Your task to perform on an android device: allow notifications from all sites in the chrome app Image 0: 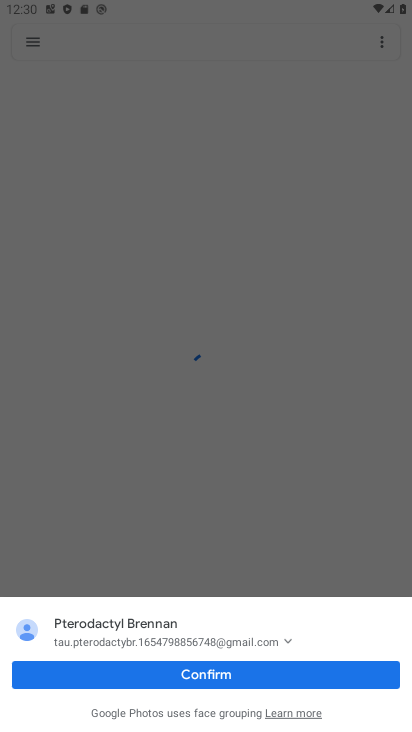
Step 0: press home button
Your task to perform on an android device: allow notifications from all sites in the chrome app Image 1: 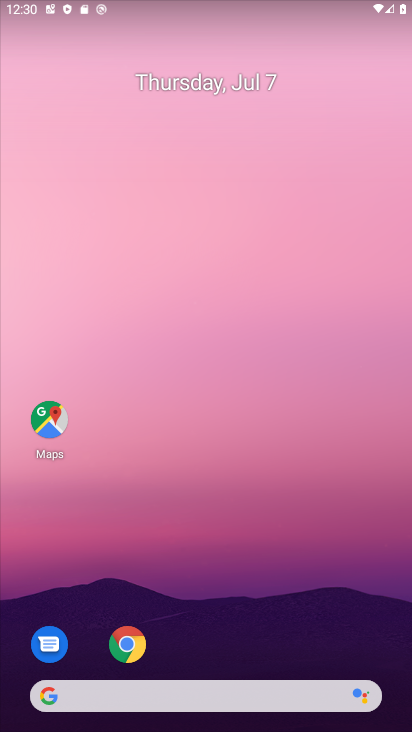
Step 1: click (120, 639)
Your task to perform on an android device: allow notifications from all sites in the chrome app Image 2: 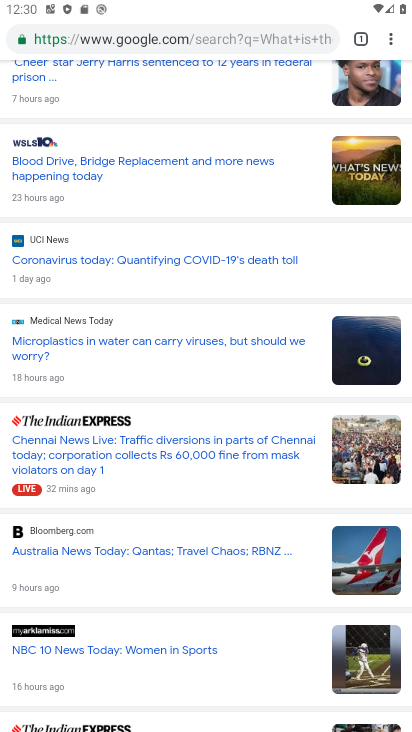
Step 2: drag from (275, 220) to (253, 728)
Your task to perform on an android device: allow notifications from all sites in the chrome app Image 3: 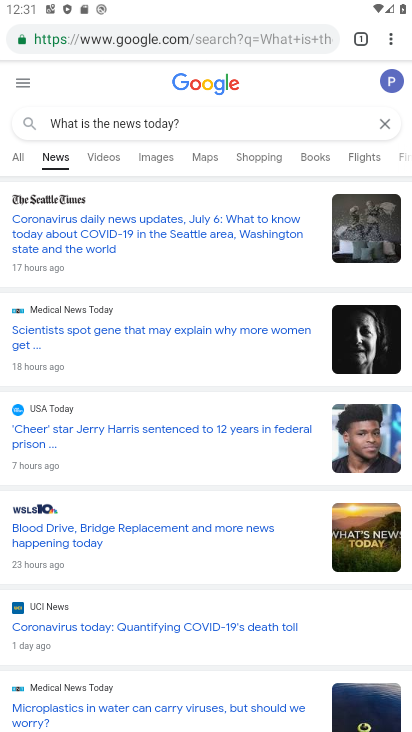
Step 3: click (388, 122)
Your task to perform on an android device: allow notifications from all sites in the chrome app Image 4: 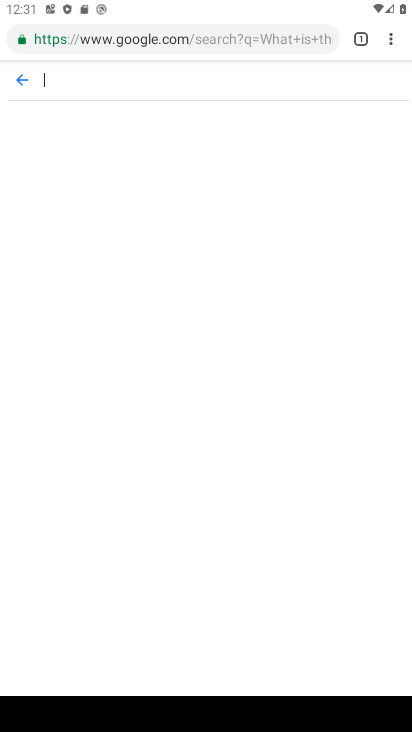
Step 4: click (114, 69)
Your task to perform on an android device: allow notifications from all sites in the chrome app Image 5: 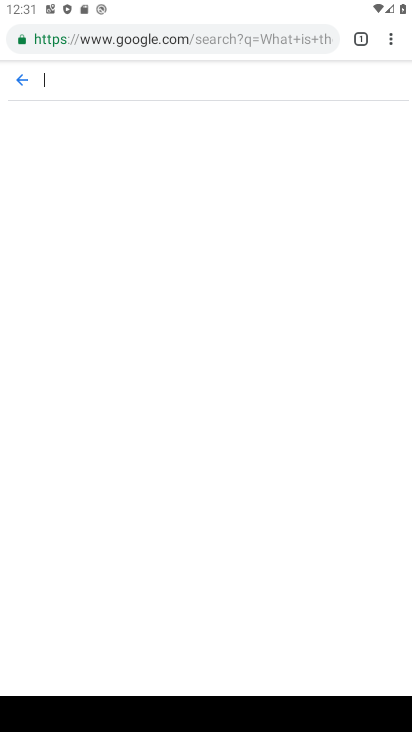
Step 5: click (16, 73)
Your task to perform on an android device: allow notifications from all sites in the chrome app Image 6: 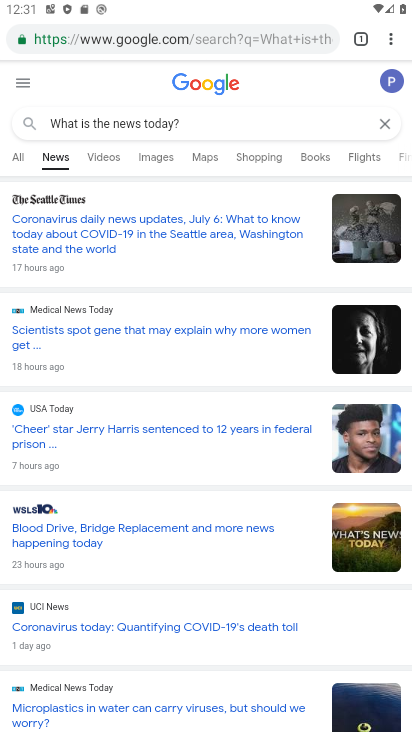
Step 6: drag from (387, 37) to (236, 433)
Your task to perform on an android device: allow notifications from all sites in the chrome app Image 7: 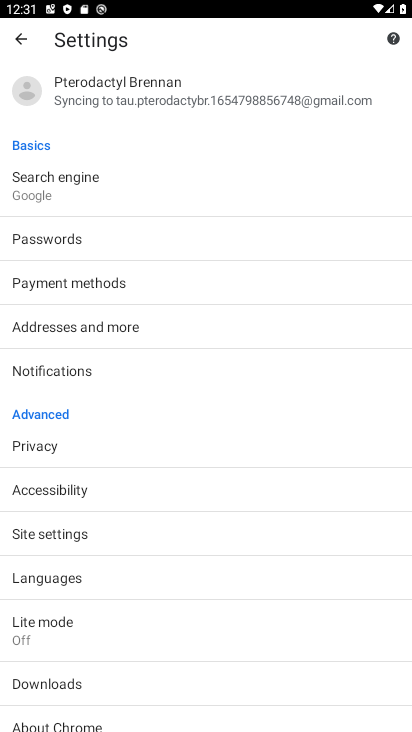
Step 7: click (26, 534)
Your task to perform on an android device: allow notifications from all sites in the chrome app Image 8: 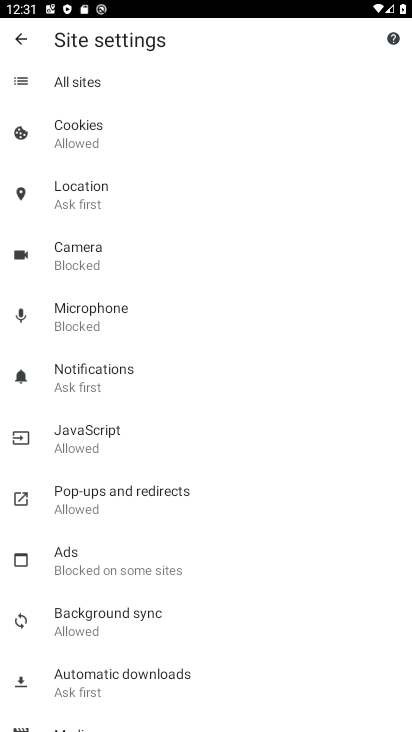
Step 8: click (68, 81)
Your task to perform on an android device: allow notifications from all sites in the chrome app Image 9: 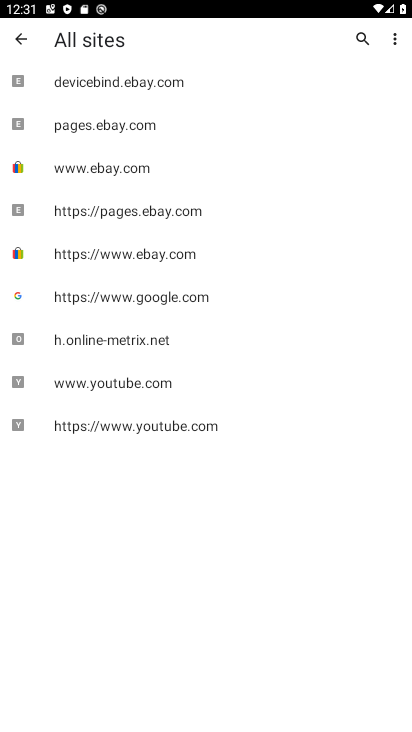
Step 9: click (72, 85)
Your task to perform on an android device: allow notifications from all sites in the chrome app Image 10: 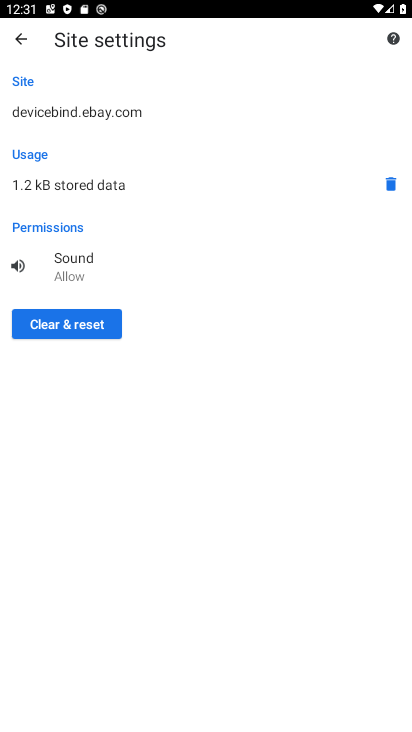
Step 10: click (22, 23)
Your task to perform on an android device: allow notifications from all sites in the chrome app Image 11: 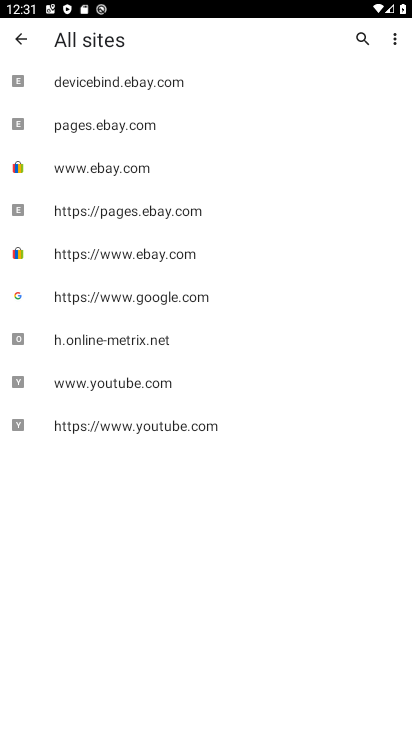
Step 11: click (98, 219)
Your task to perform on an android device: allow notifications from all sites in the chrome app Image 12: 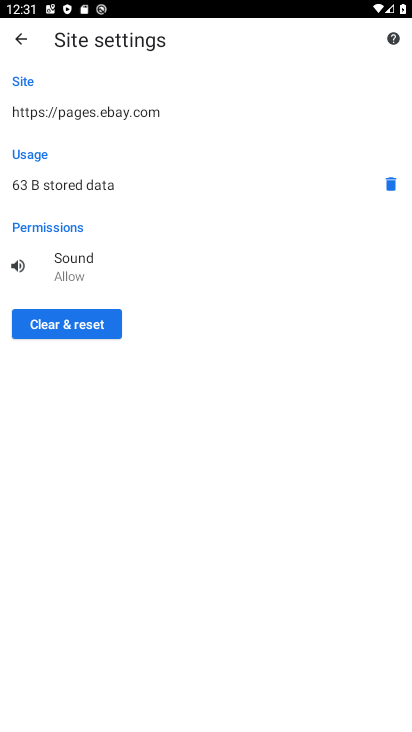
Step 12: click (22, 37)
Your task to perform on an android device: allow notifications from all sites in the chrome app Image 13: 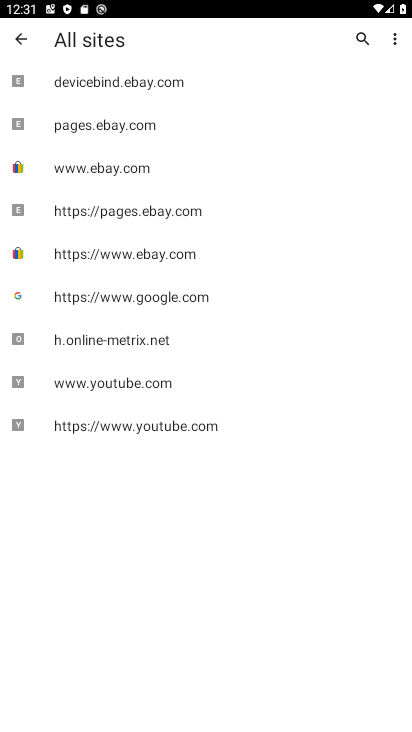
Step 13: click (124, 414)
Your task to perform on an android device: allow notifications from all sites in the chrome app Image 14: 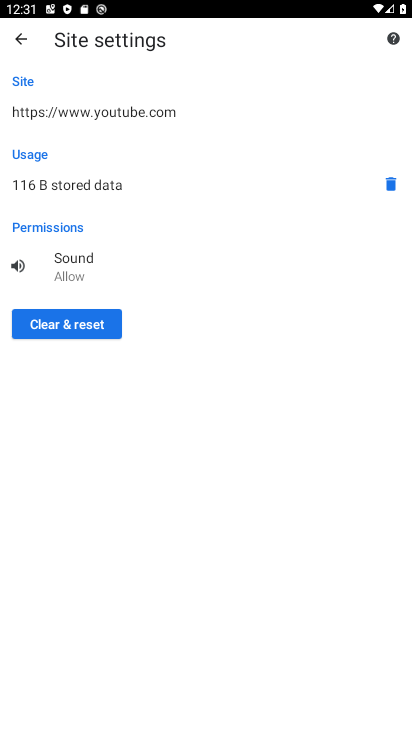
Step 14: click (24, 31)
Your task to perform on an android device: allow notifications from all sites in the chrome app Image 15: 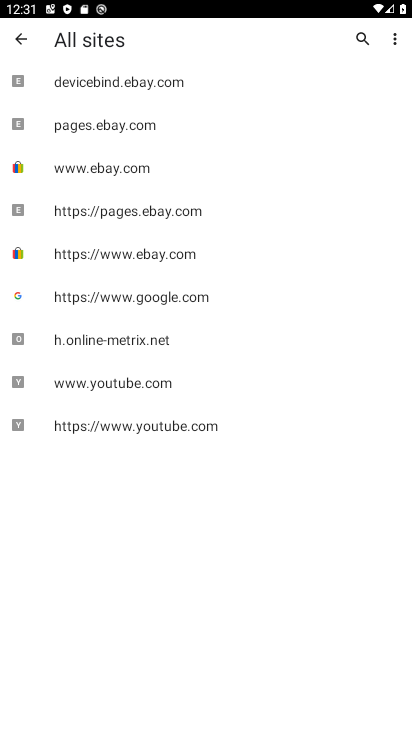
Step 15: task complete